Your task to perform on an android device: change notifications settings Image 0: 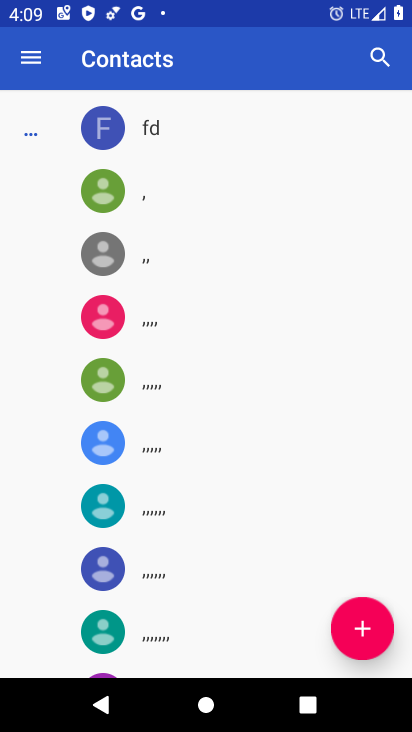
Step 0: press home button
Your task to perform on an android device: change notifications settings Image 1: 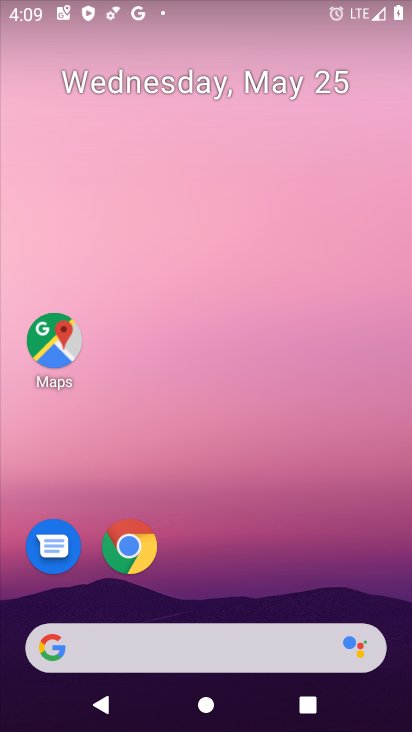
Step 1: drag from (281, 523) to (276, 7)
Your task to perform on an android device: change notifications settings Image 2: 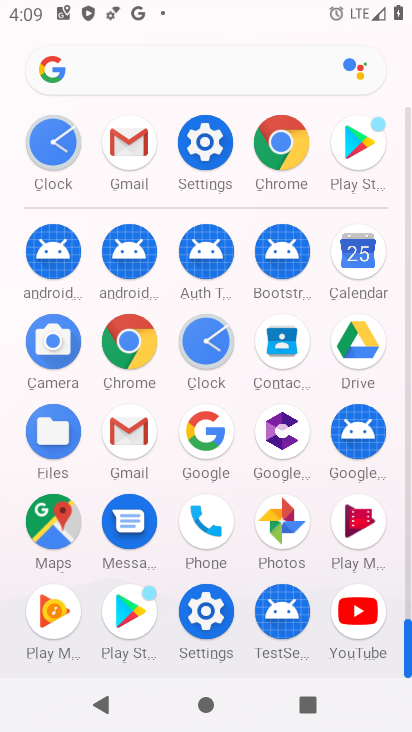
Step 2: click (205, 625)
Your task to perform on an android device: change notifications settings Image 3: 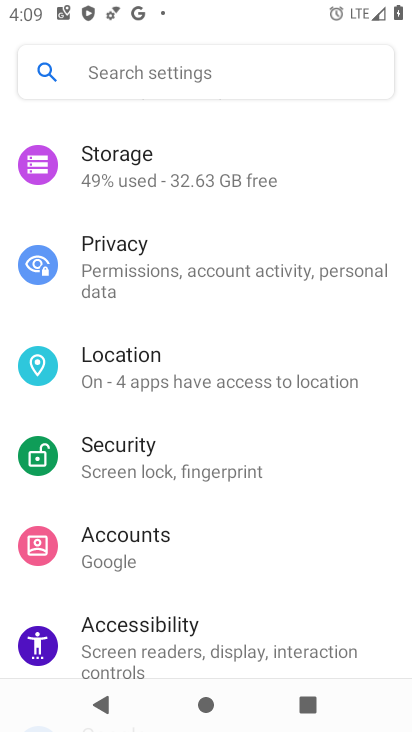
Step 3: drag from (155, 221) to (223, 680)
Your task to perform on an android device: change notifications settings Image 4: 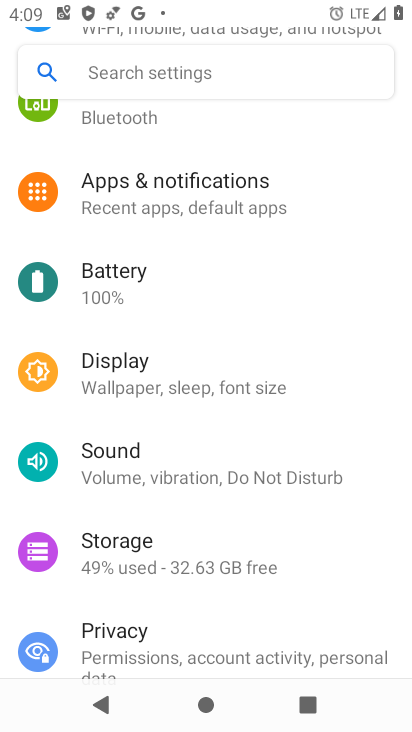
Step 4: click (186, 206)
Your task to perform on an android device: change notifications settings Image 5: 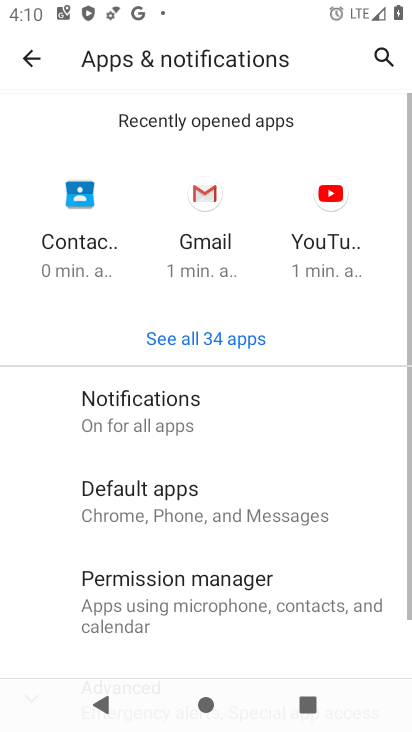
Step 5: click (148, 402)
Your task to perform on an android device: change notifications settings Image 6: 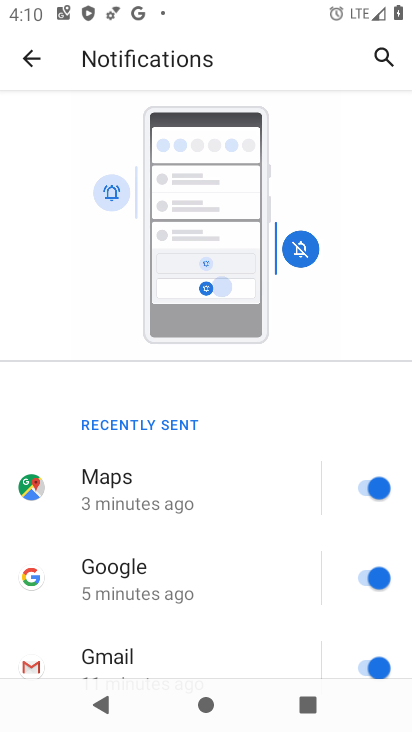
Step 6: drag from (183, 611) to (234, 222)
Your task to perform on an android device: change notifications settings Image 7: 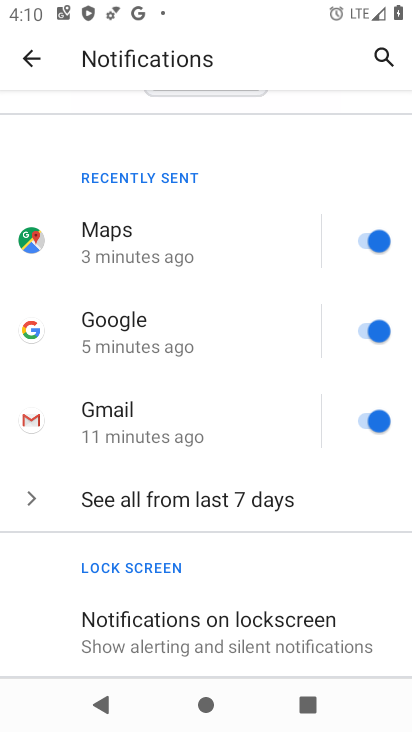
Step 7: click (222, 499)
Your task to perform on an android device: change notifications settings Image 8: 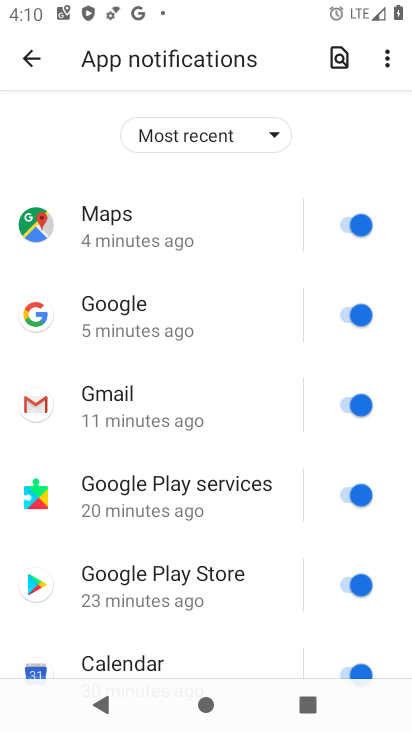
Step 8: click (343, 222)
Your task to perform on an android device: change notifications settings Image 9: 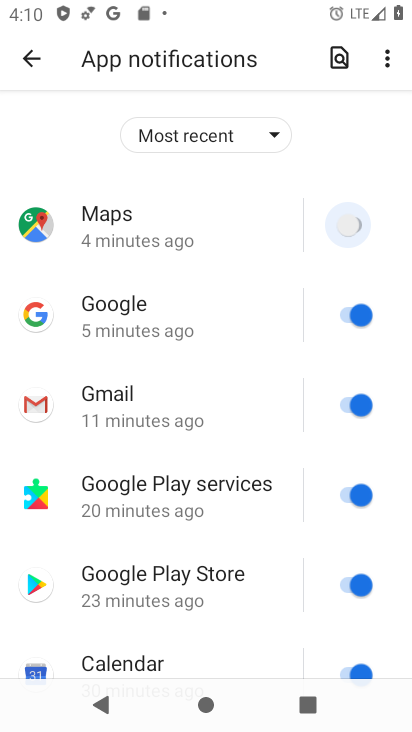
Step 9: click (357, 309)
Your task to perform on an android device: change notifications settings Image 10: 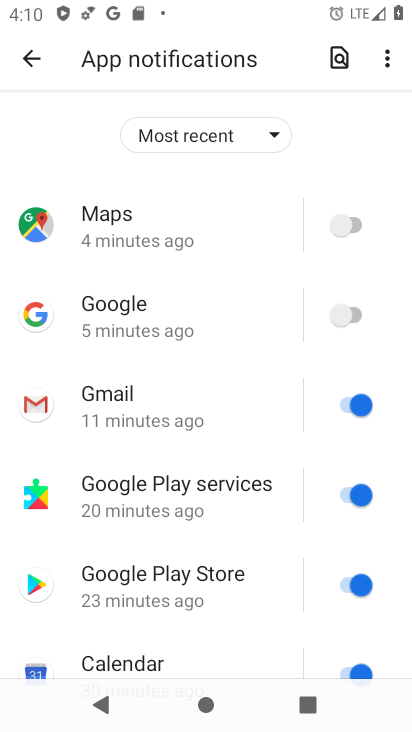
Step 10: click (332, 401)
Your task to perform on an android device: change notifications settings Image 11: 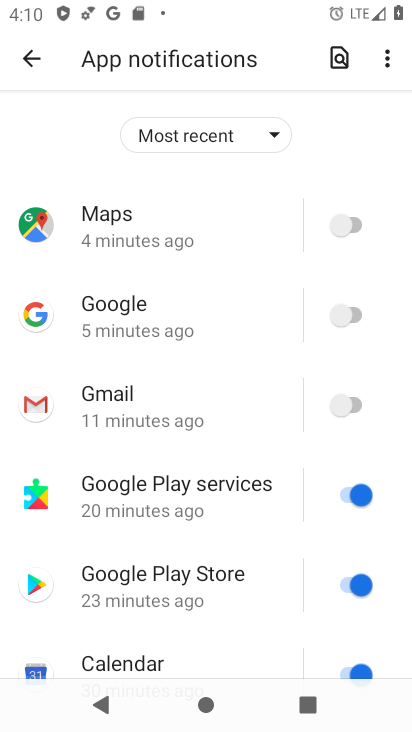
Step 11: click (365, 499)
Your task to perform on an android device: change notifications settings Image 12: 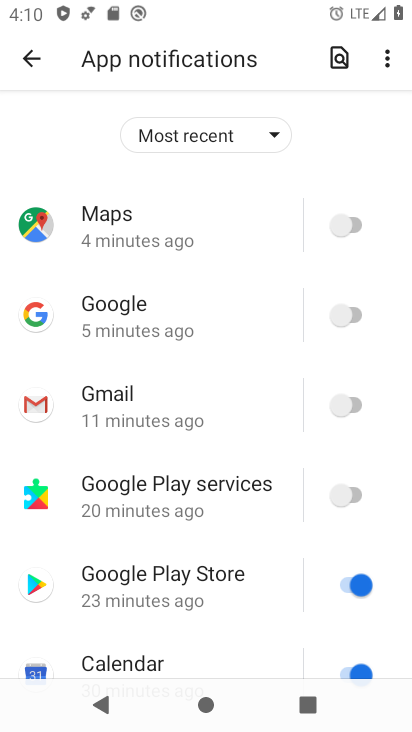
Step 12: click (340, 585)
Your task to perform on an android device: change notifications settings Image 13: 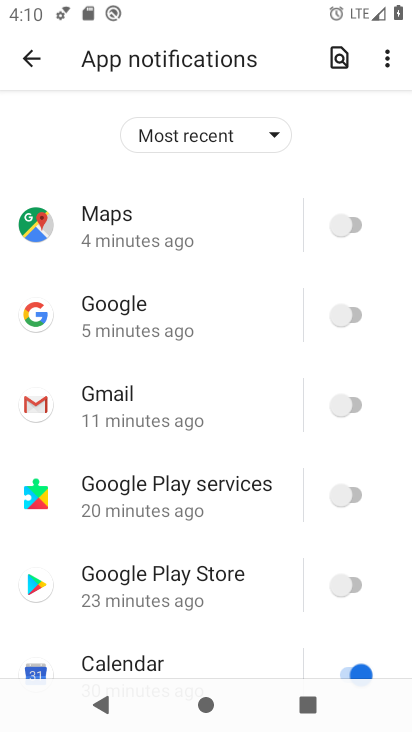
Step 13: click (363, 668)
Your task to perform on an android device: change notifications settings Image 14: 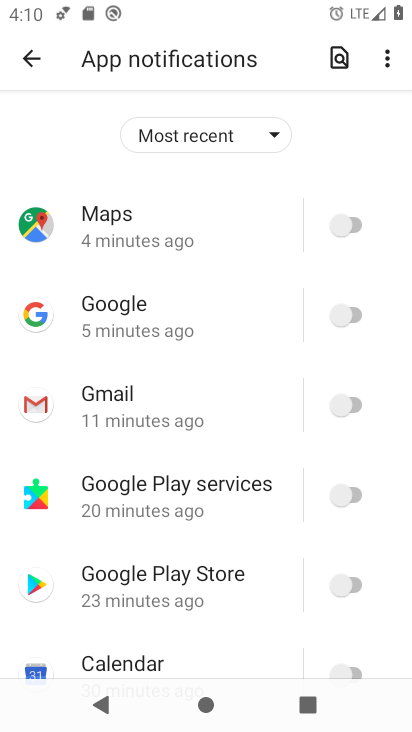
Step 14: drag from (233, 563) to (299, 82)
Your task to perform on an android device: change notifications settings Image 15: 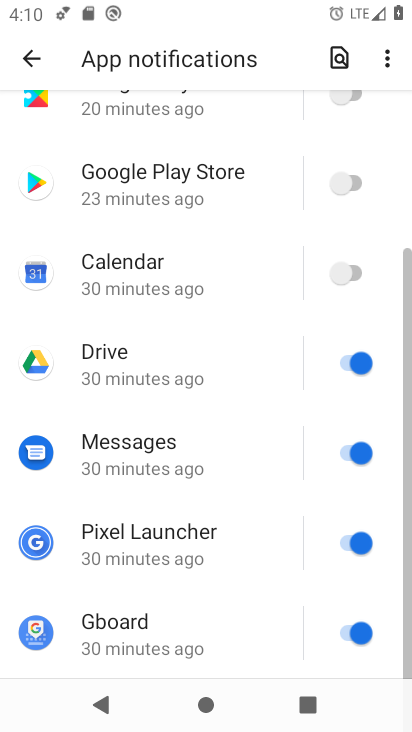
Step 15: click (364, 354)
Your task to perform on an android device: change notifications settings Image 16: 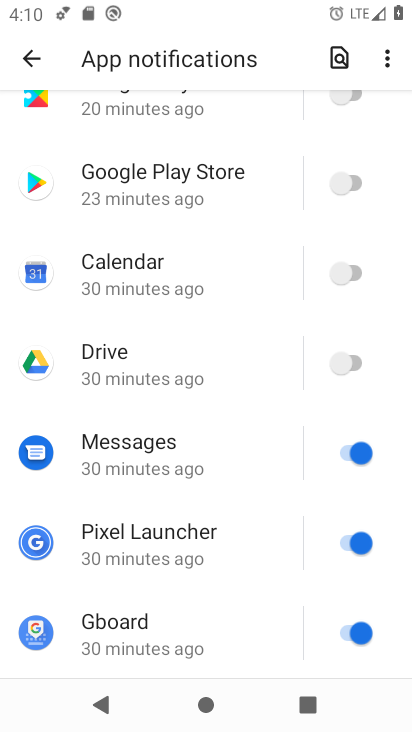
Step 16: click (362, 455)
Your task to perform on an android device: change notifications settings Image 17: 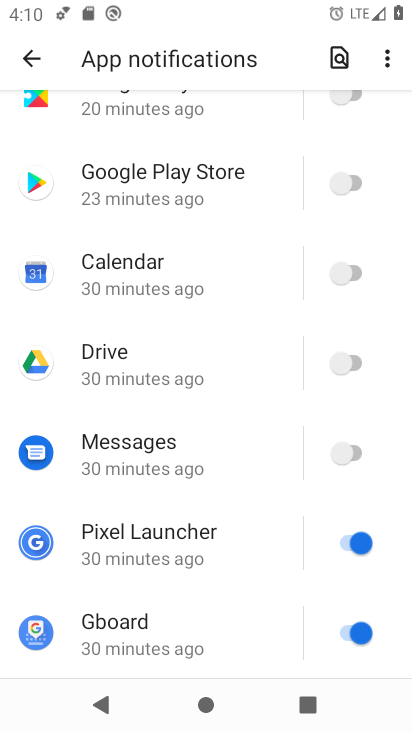
Step 17: click (343, 537)
Your task to perform on an android device: change notifications settings Image 18: 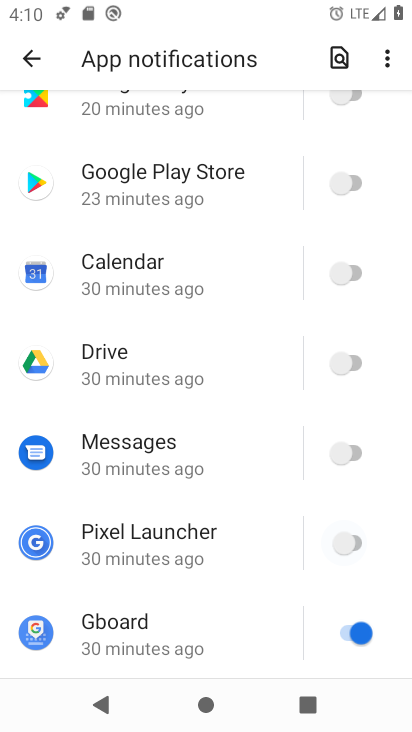
Step 18: click (343, 626)
Your task to perform on an android device: change notifications settings Image 19: 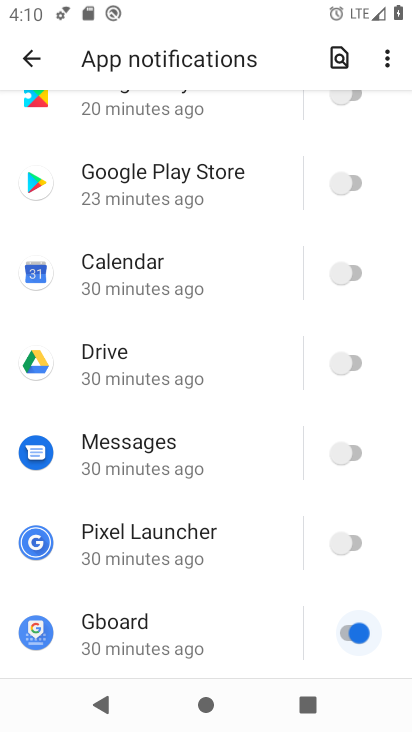
Step 19: drag from (214, 591) to (235, 38)
Your task to perform on an android device: change notifications settings Image 20: 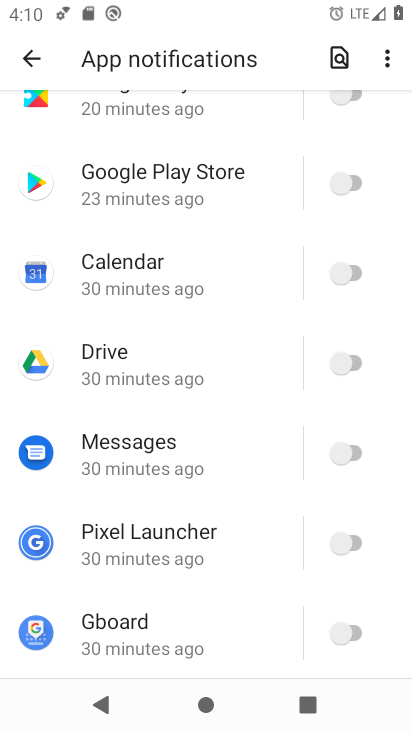
Step 20: click (40, 61)
Your task to perform on an android device: change notifications settings Image 21: 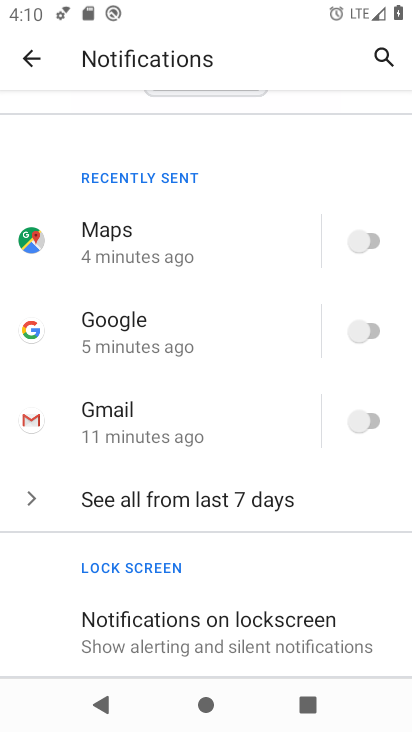
Step 21: drag from (150, 562) to (242, 99)
Your task to perform on an android device: change notifications settings Image 22: 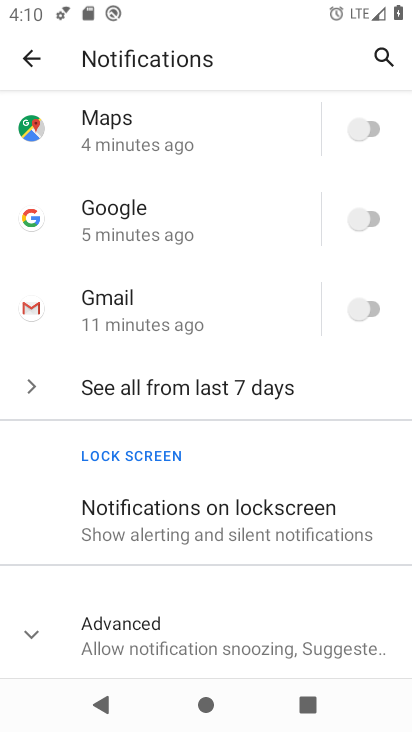
Step 22: click (139, 532)
Your task to perform on an android device: change notifications settings Image 23: 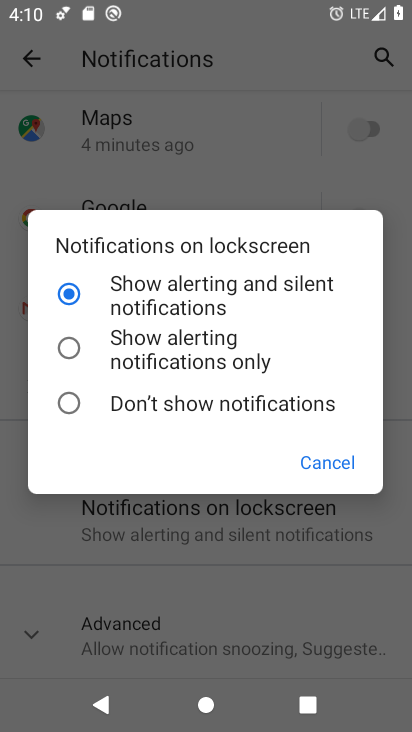
Step 23: click (149, 340)
Your task to perform on an android device: change notifications settings Image 24: 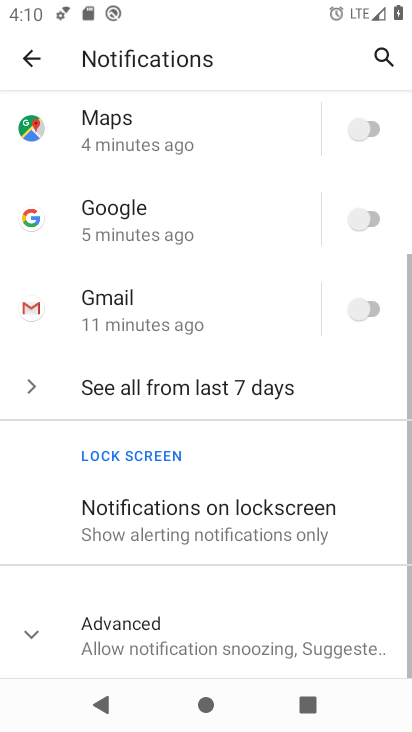
Step 24: click (187, 637)
Your task to perform on an android device: change notifications settings Image 25: 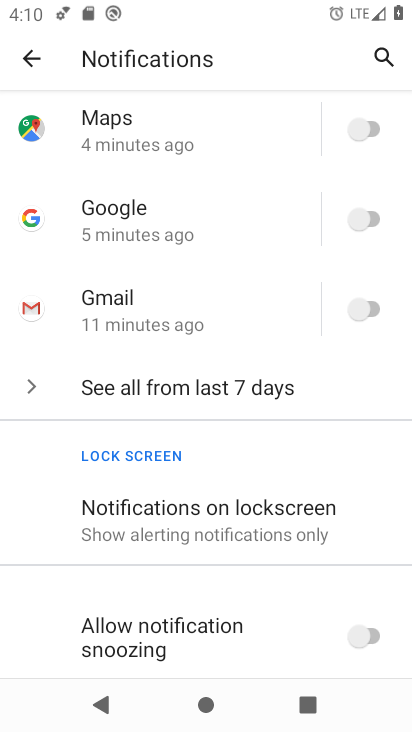
Step 25: drag from (215, 606) to (260, 133)
Your task to perform on an android device: change notifications settings Image 26: 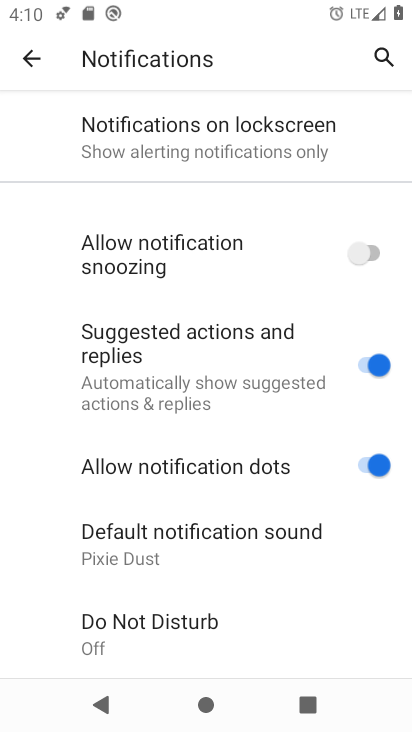
Step 26: click (367, 263)
Your task to perform on an android device: change notifications settings Image 27: 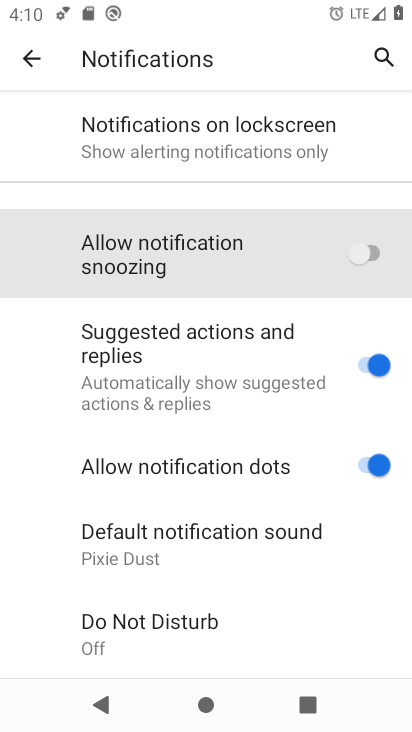
Step 27: click (377, 357)
Your task to perform on an android device: change notifications settings Image 28: 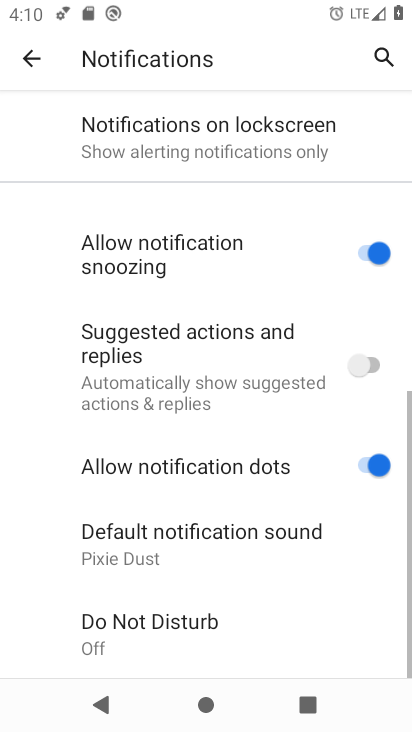
Step 28: click (364, 466)
Your task to perform on an android device: change notifications settings Image 29: 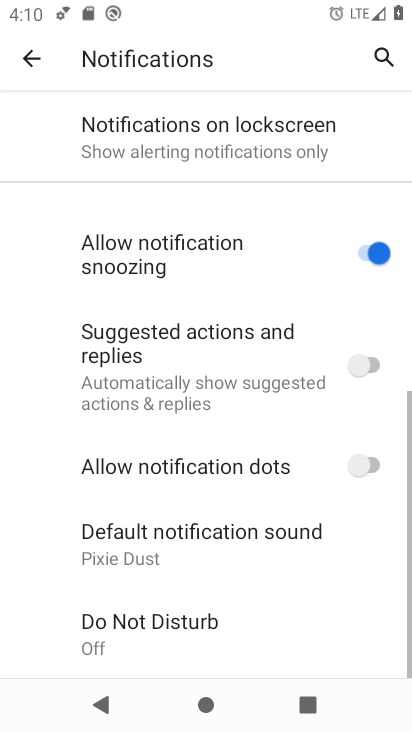
Step 29: task complete